Your task to perform on an android device: change notifications settings Image 0: 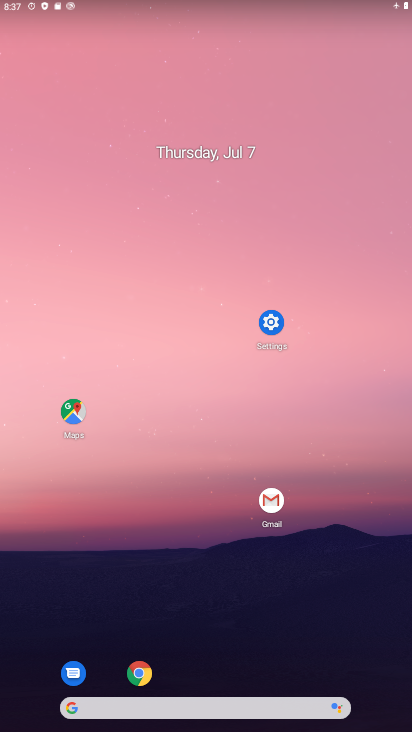
Step 0: drag from (389, 648) to (348, 188)
Your task to perform on an android device: change notifications settings Image 1: 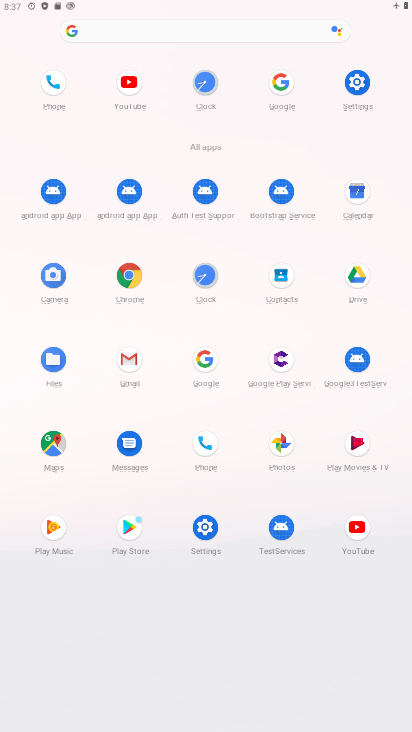
Step 1: click (366, 86)
Your task to perform on an android device: change notifications settings Image 2: 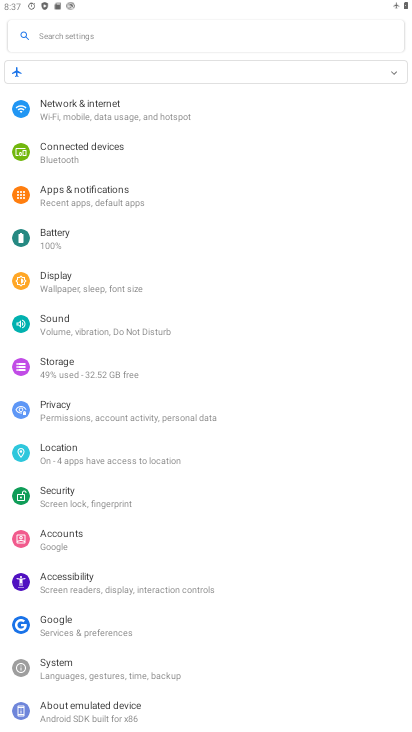
Step 2: click (88, 190)
Your task to perform on an android device: change notifications settings Image 3: 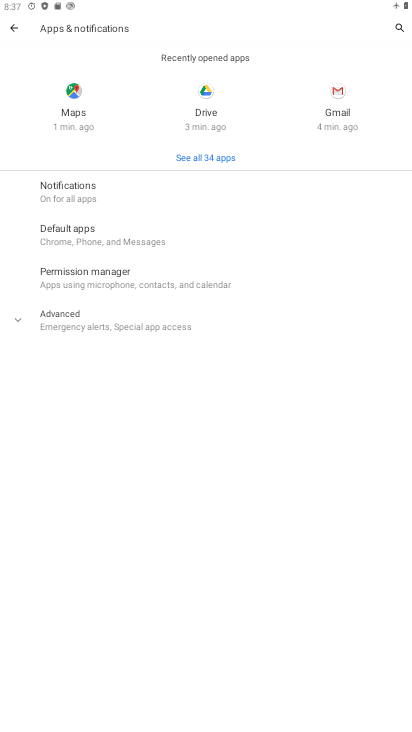
Step 3: click (53, 197)
Your task to perform on an android device: change notifications settings Image 4: 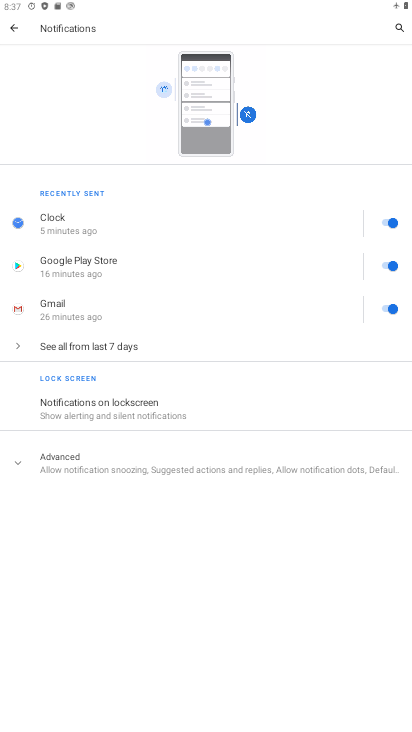
Step 4: click (386, 216)
Your task to perform on an android device: change notifications settings Image 5: 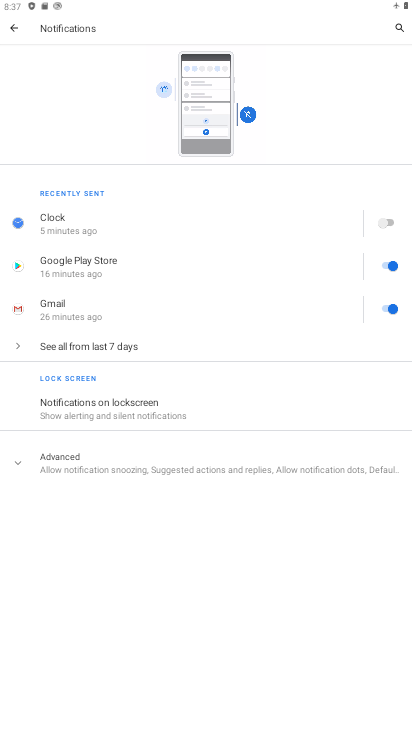
Step 5: click (383, 265)
Your task to perform on an android device: change notifications settings Image 6: 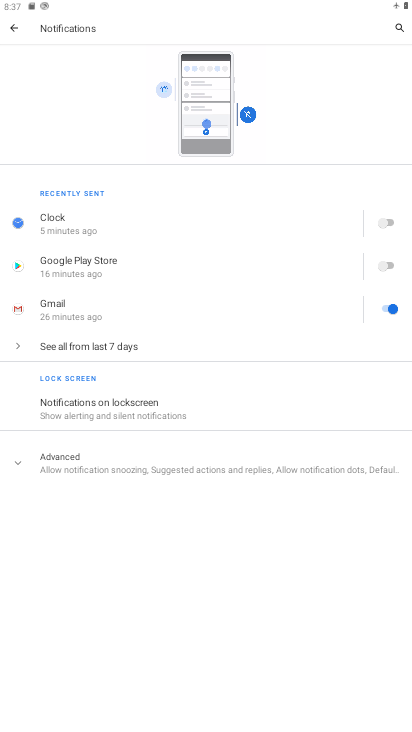
Step 6: click (397, 323)
Your task to perform on an android device: change notifications settings Image 7: 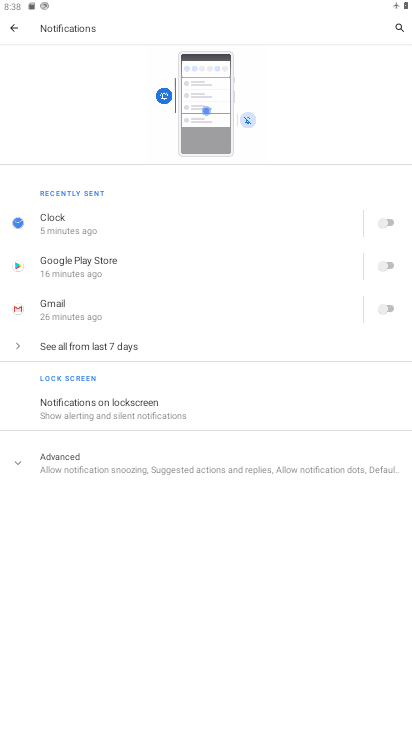
Step 7: task complete